Your task to perform on an android device: choose inbox layout in the gmail app Image 0: 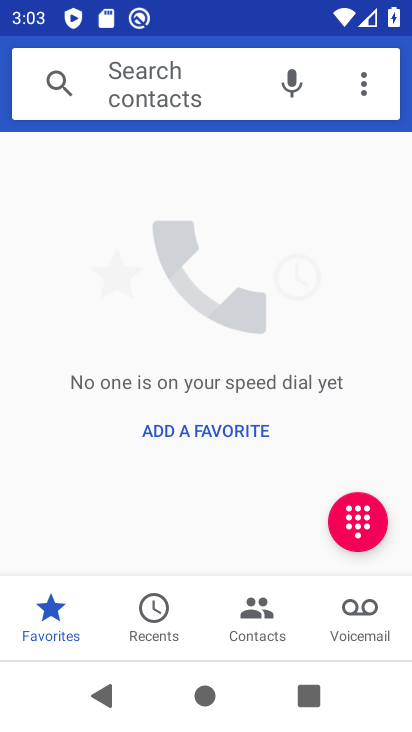
Step 0: press home button
Your task to perform on an android device: choose inbox layout in the gmail app Image 1: 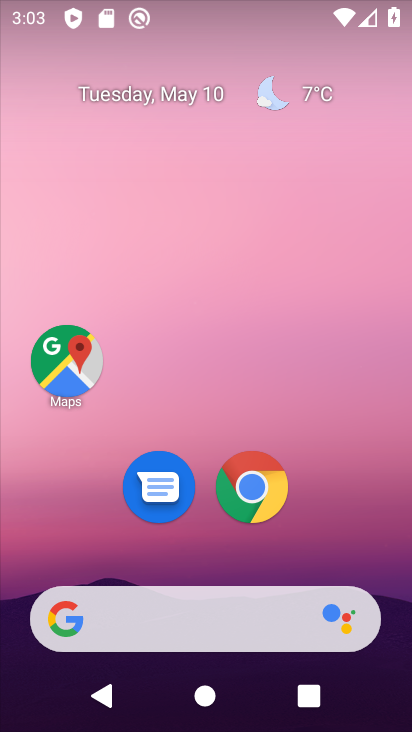
Step 1: drag from (337, 542) to (288, 87)
Your task to perform on an android device: choose inbox layout in the gmail app Image 2: 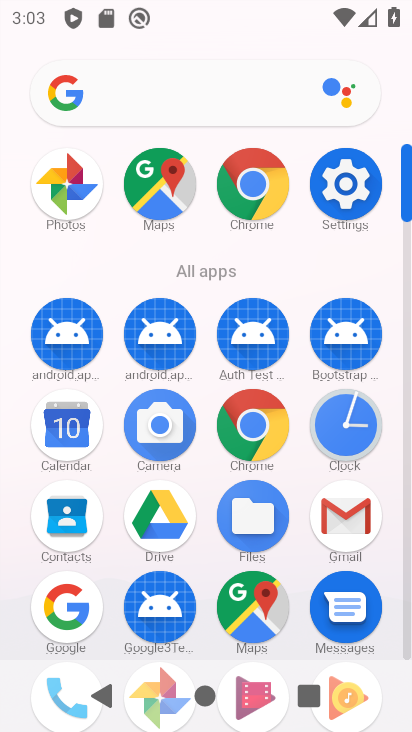
Step 2: click (334, 536)
Your task to perform on an android device: choose inbox layout in the gmail app Image 3: 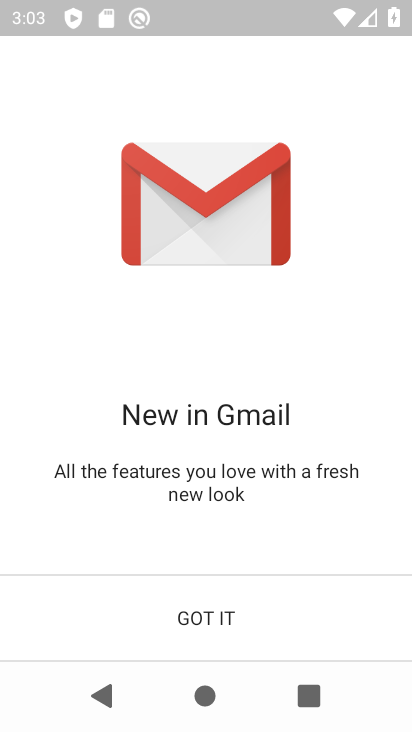
Step 3: click (205, 626)
Your task to perform on an android device: choose inbox layout in the gmail app Image 4: 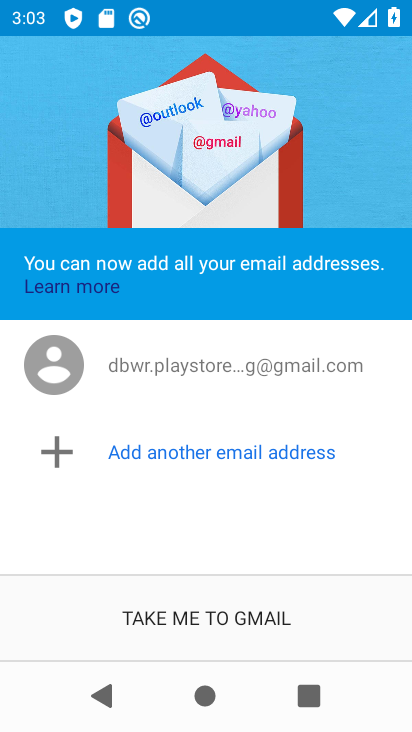
Step 4: click (172, 610)
Your task to perform on an android device: choose inbox layout in the gmail app Image 5: 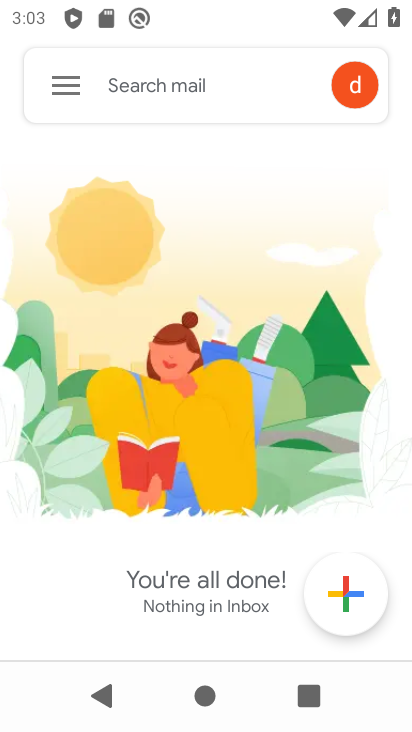
Step 5: click (63, 86)
Your task to perform on an android device: choose inbox layout in the gmail app Image 6: 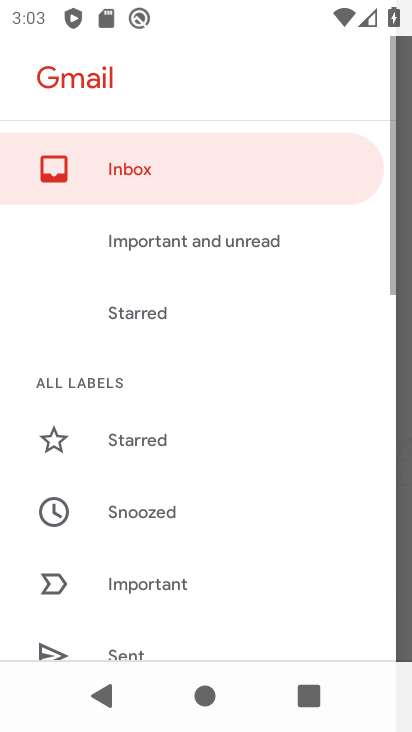
Step 6: drag from (241, 617) to (239, 161)
Your task to perform on an android device: choose inbox layout in the gmail app Image 7: 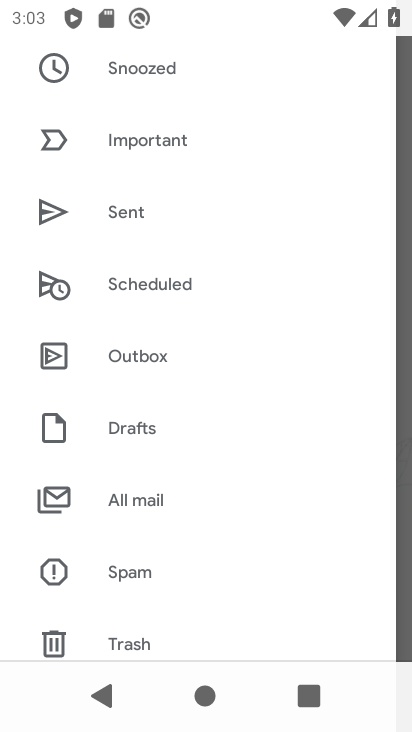
Step 7: drag from (207, 590) to (234, 214)
Your task to perform on an android device: choose inbox layout in the gmail app Image 8: 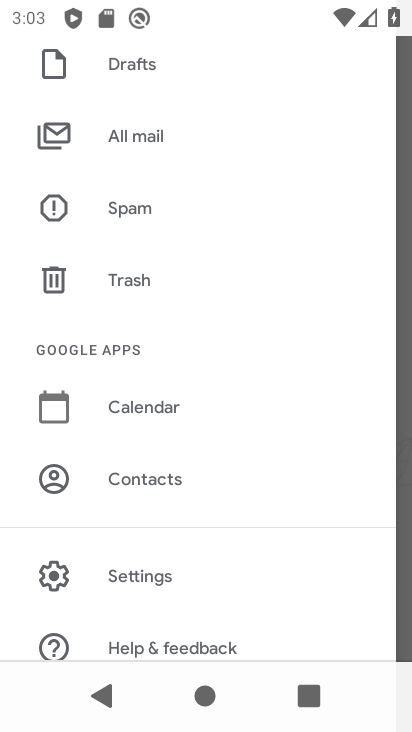
Step 8: click (178, 571)
Your task to perform on an android device: choose inbox layout in the gmail app Image 9: 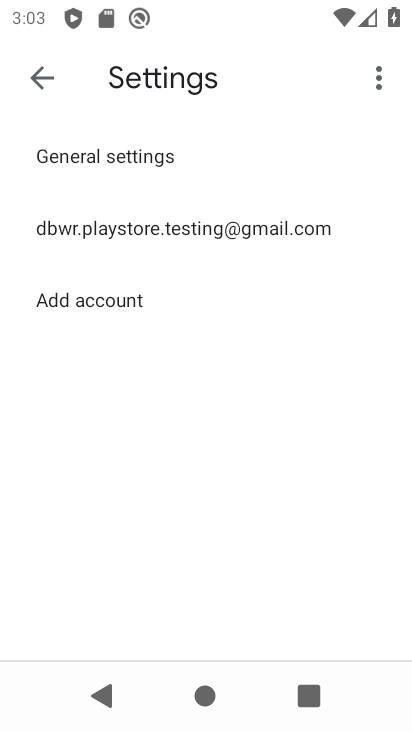
Step 9: click (209, 232)
Your task to perform on an android device: choose inbox layout in the gmail app Image 10: 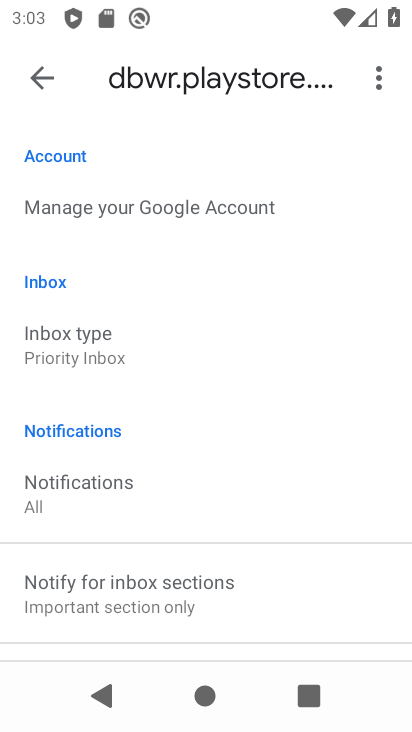
Step 10: click (95, 340)
Your task to perform on an android device: choose inbox layout in the gmail app Image 11: 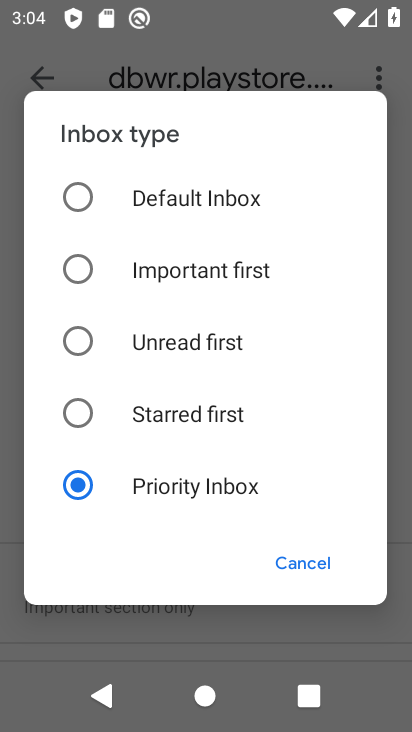
Step 11: task complete